Your task to perform on an android device: see sites visited before in the chrome app Image 0: 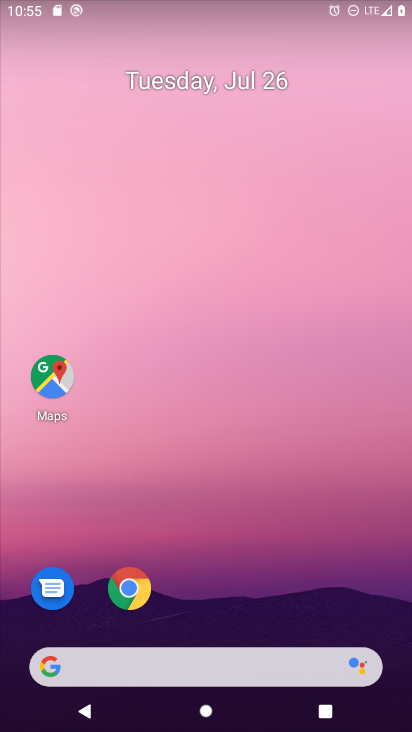
Step 0: drag from (198, 655) to (229, 269)
Your task to perform on an android device: see sites visited before in the chrome app Image 1: 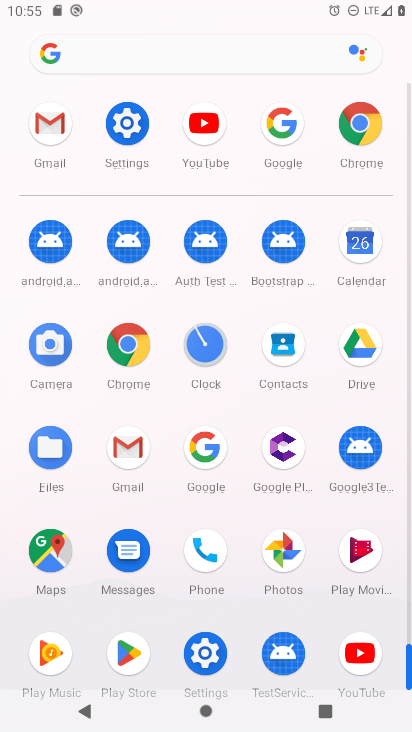
Step 1: click (350, 143)
Your task to perform on an android device: see sites visited before in the chrome app Image 2: 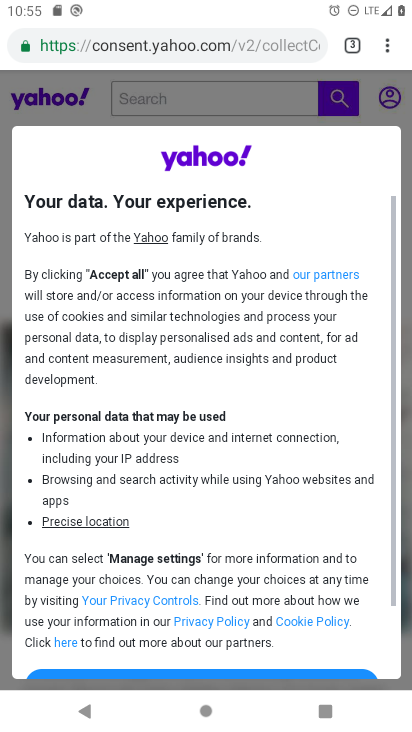
Step 2: click (386, 50)
Your task to perform on an android device: see sites visited before in the chrome app Image 3: 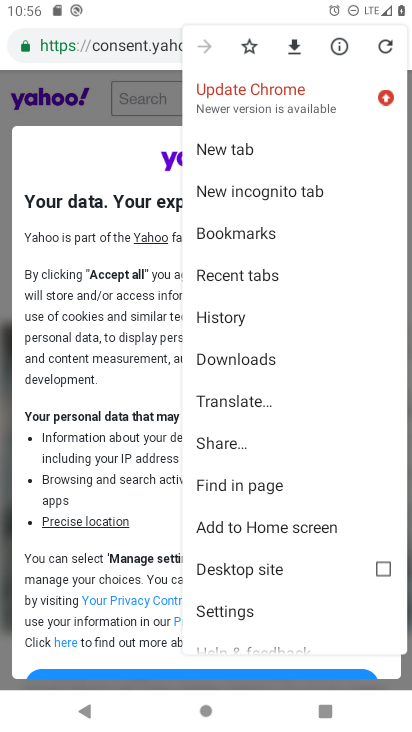
Step 3: click (233, 312)
Your task to perform on an android device: see sites visited before in the chrome app Image 4: 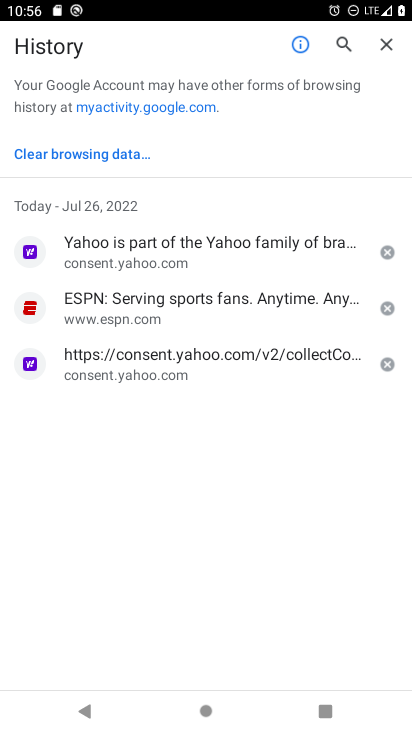
Step 4: task complete